Your task to perform on an android device: turn on improve location accuracy Image 0: 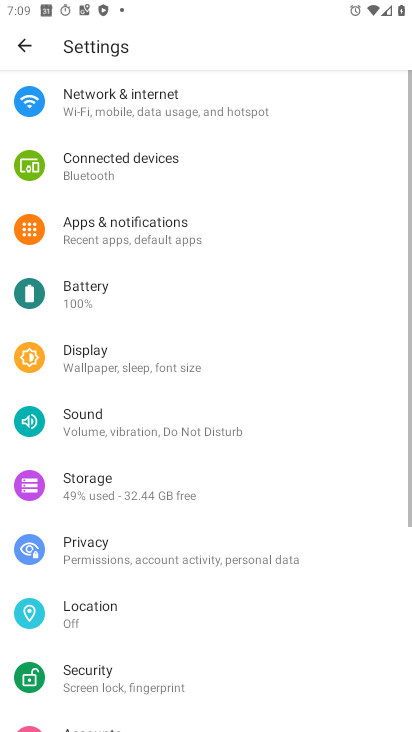
Step 0: press home button
Your task to perform on an android device: turn on improve location accuracy Image 1: 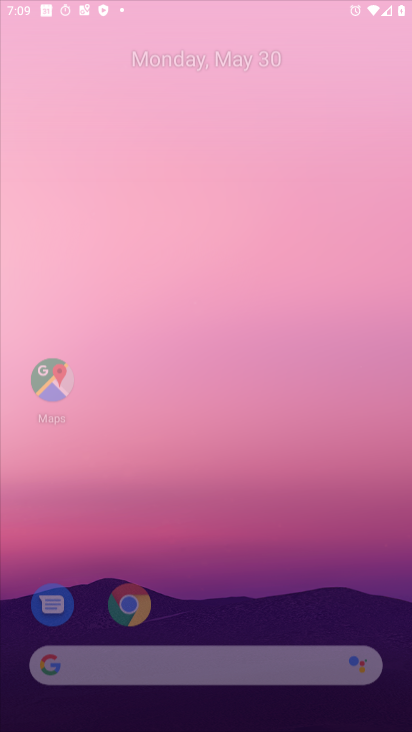
Step 1: drag from (321, 666) to (200, 6)
Your task to perform on an android device: turn on improve location accuracy Image 2: 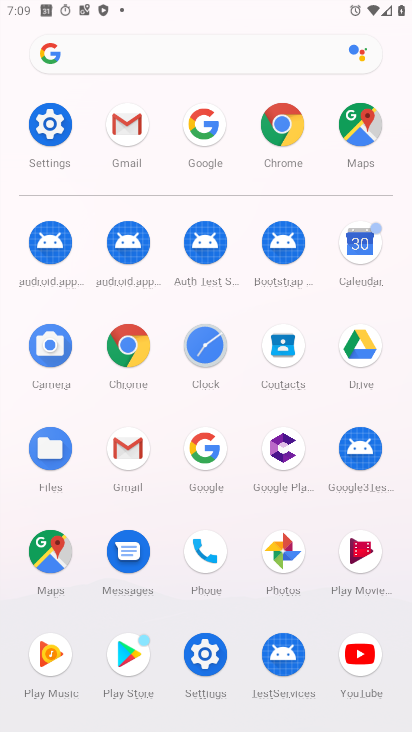
Step 2: click (65, 138)
Your task to perform on an android device: turn on improve location accuracy Image 3: 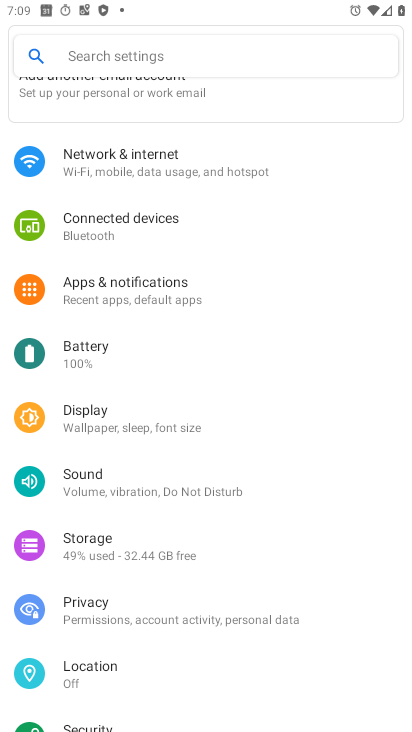
Step 3: click (108, 671)
Your task to perform on an android device: turn on improve location accuracy Image 4: 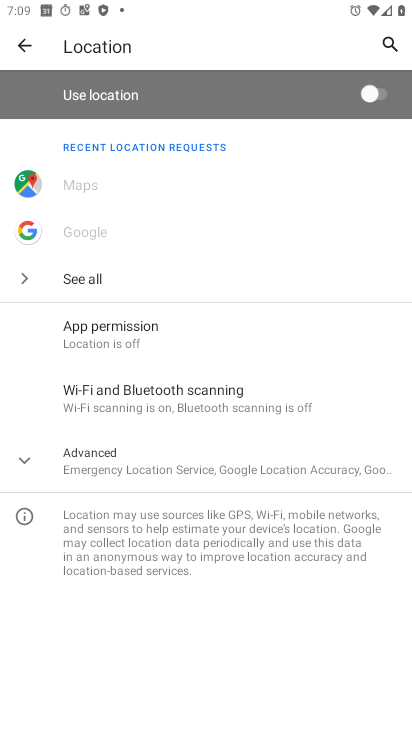
Step 4: click (167, 461)
Your task to perform on an android device: turn on improve location accuracy Image 5: 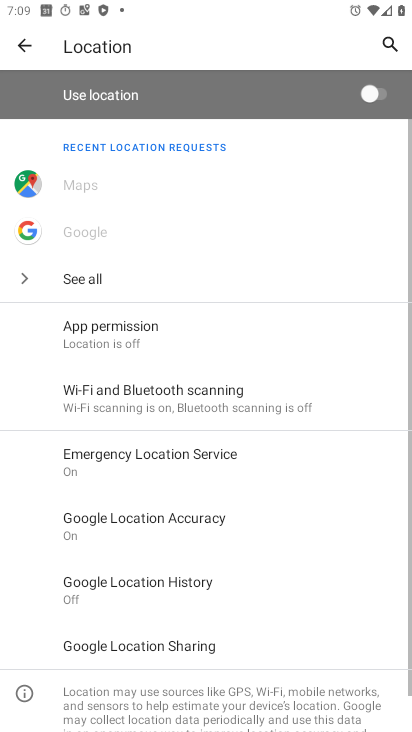
Step 5: click (157, 524)
Your task to perform on an android device: turn on improve location accuracy Image 6: 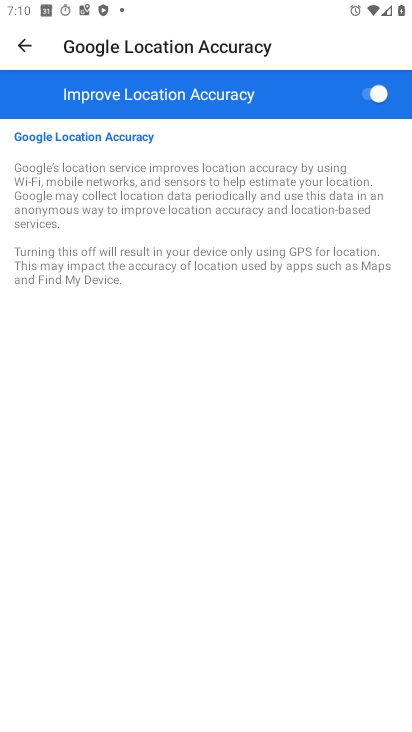
Step 6: task complete